Your task to perform on an android device: find snoozed emails in the gmail app Image 0: 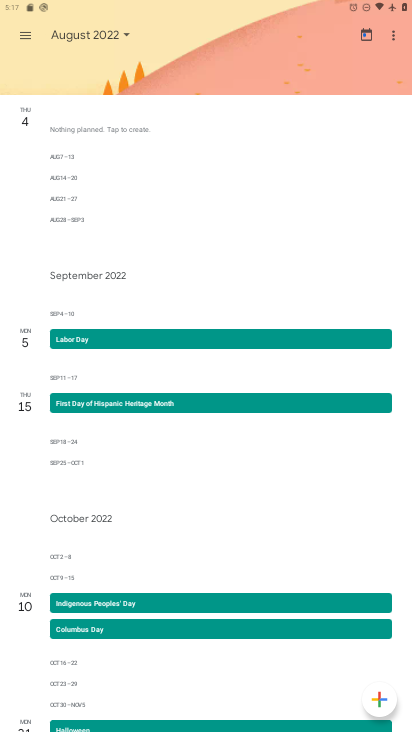
Step 0: press home button
Your task to perform on an android device: find snoozed emails in the gmail app Image 1: 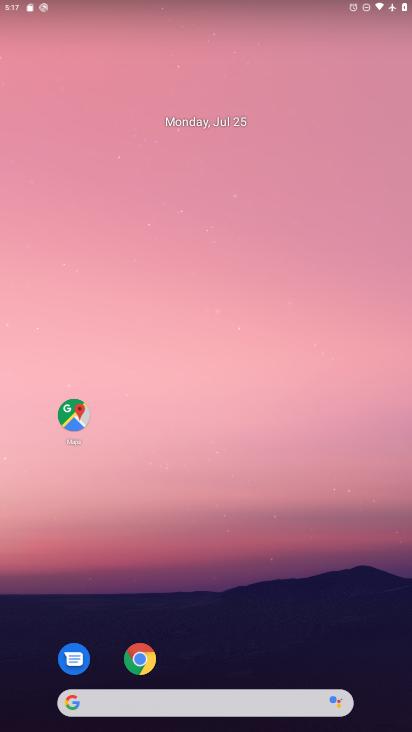
Step 1: drag from (265, 663) to (248, 160)
Your task to perform on an android device: find snoozed emails in the gmail app Image 2: 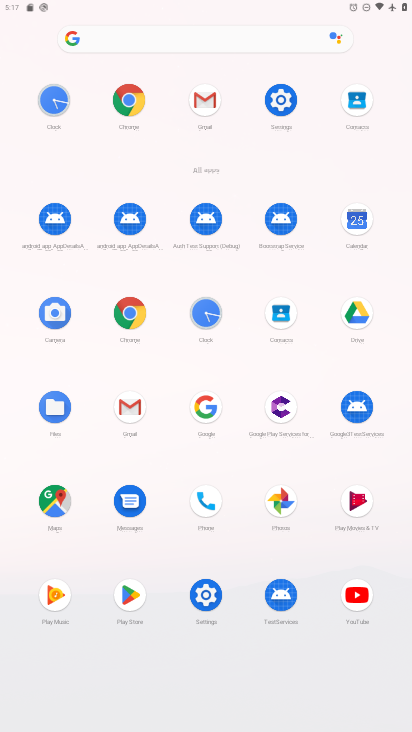
Step 2: click (209, 110)
Your task to perform on an android device: find snoozed emails in the gmail app Image 3: 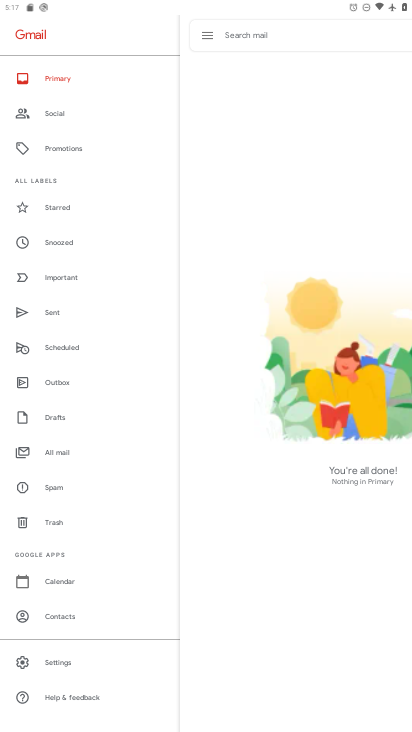
Step 3: click (89, 248)
Your task to perform on an android device: find snoozed emails in the gmail app Image 4: 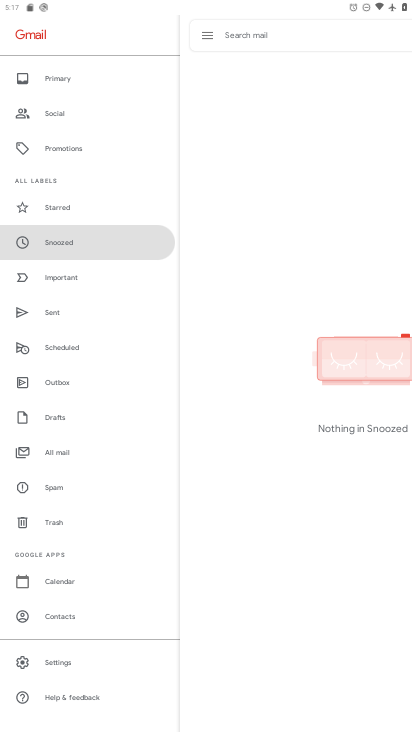
Step 4: task complete